Your task to perform on an android device: Open Chrome and go to settings Image 0: 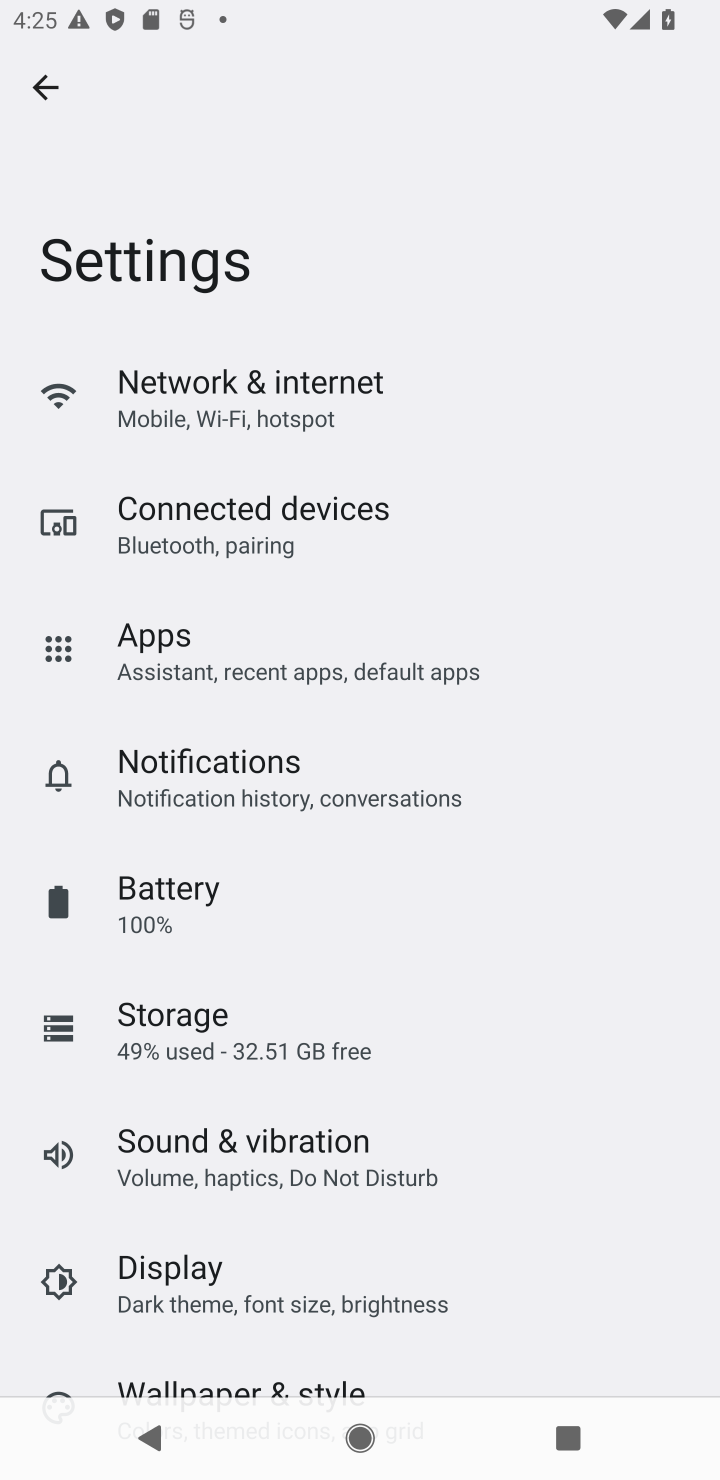
Step 0: press back button
Your task to perform on an android device: Open Chrome and go to settings Image 1: 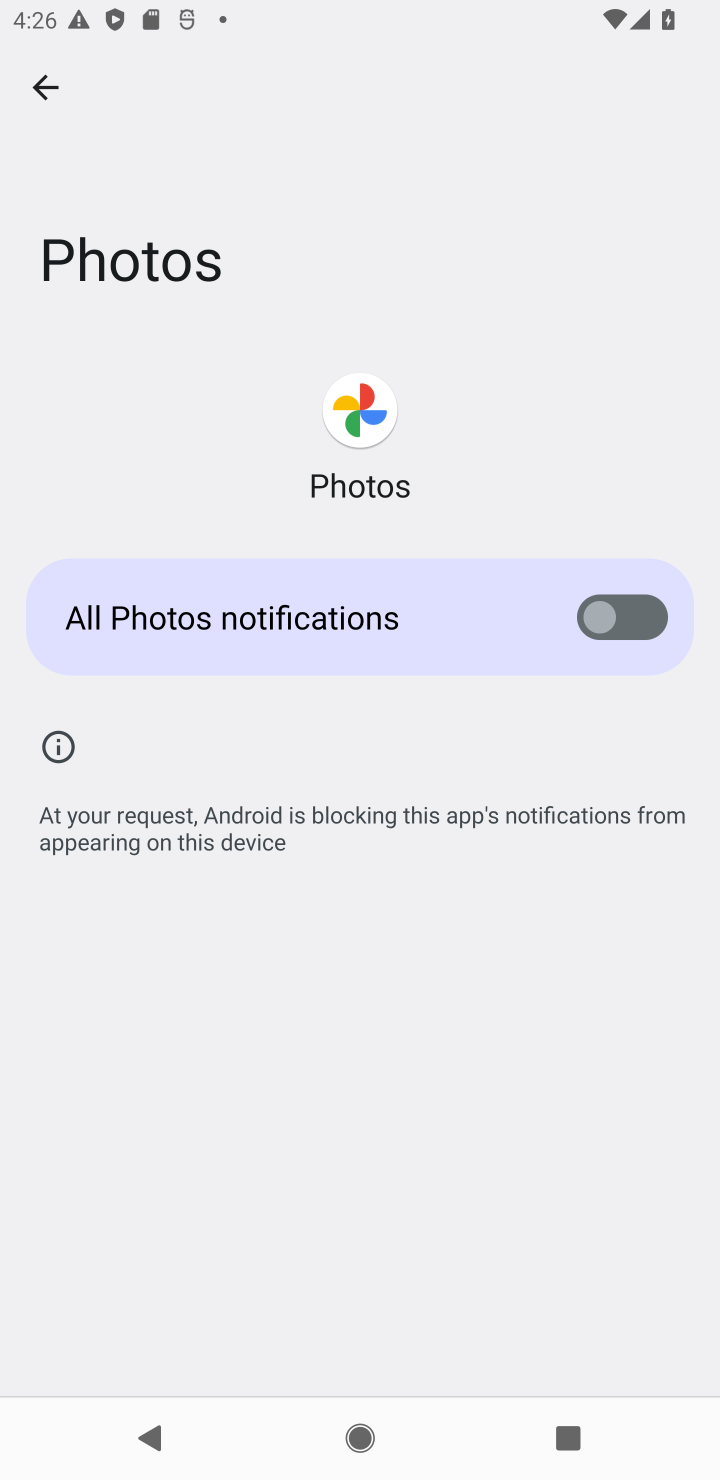
Step 1: press back button
Your task to perform on an android device: Open Chrome and go to settings Image 2: 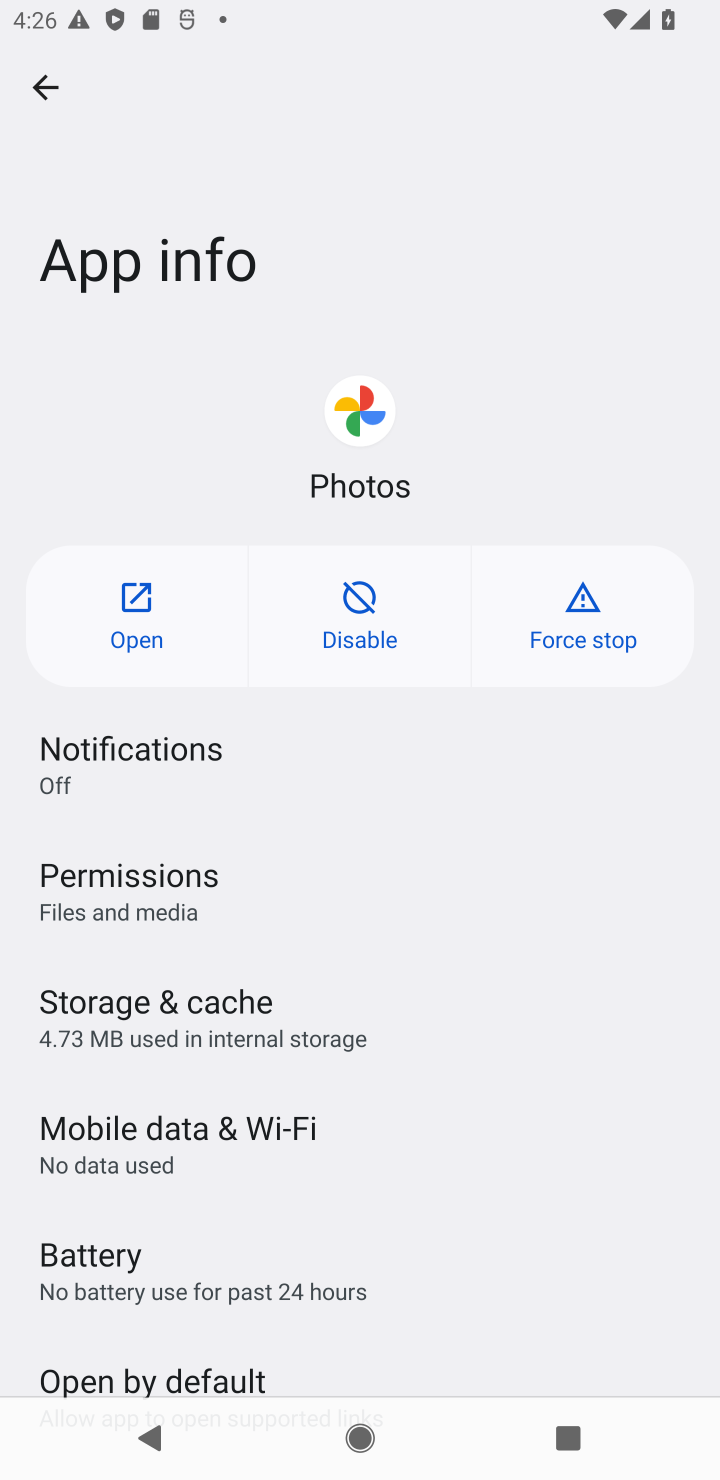
Step 2: press back button
Your task to perform on an android device: Open Chrome and go to settings Image 3: 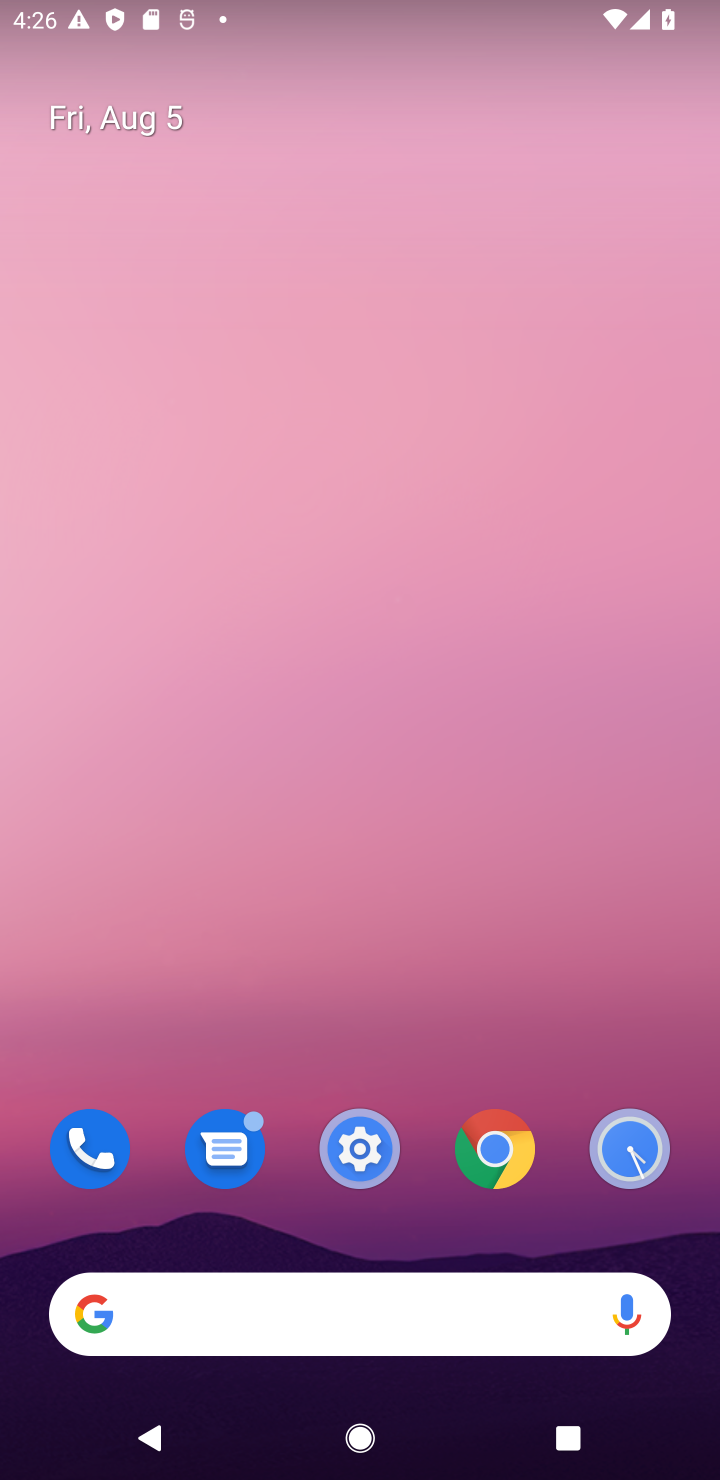
Step 3: click (505, 1131)
Your task to perform on an android device: Open Chrome and go to settings Image 4: 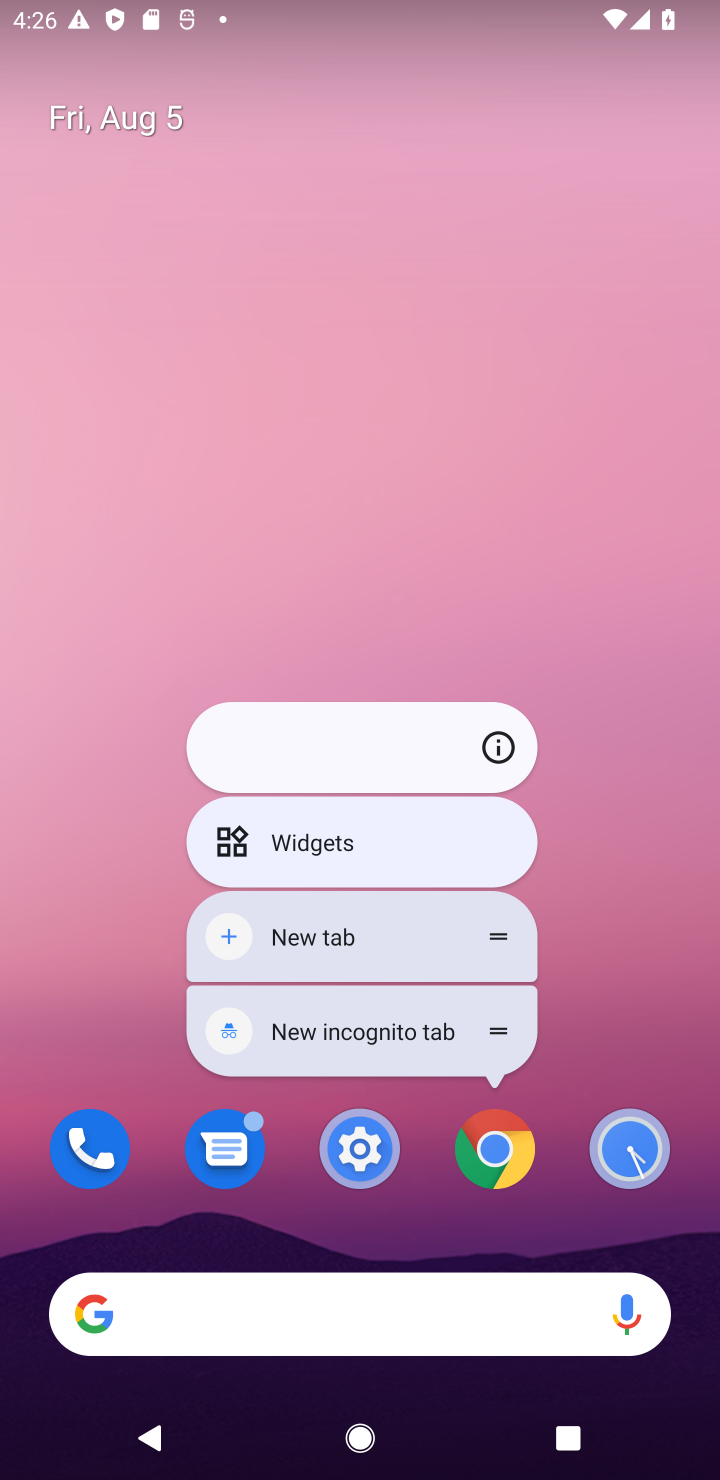
Step 4: click (505, 1131)
Your task to perform on an android device: Open Chrome and go to settings Image 5: 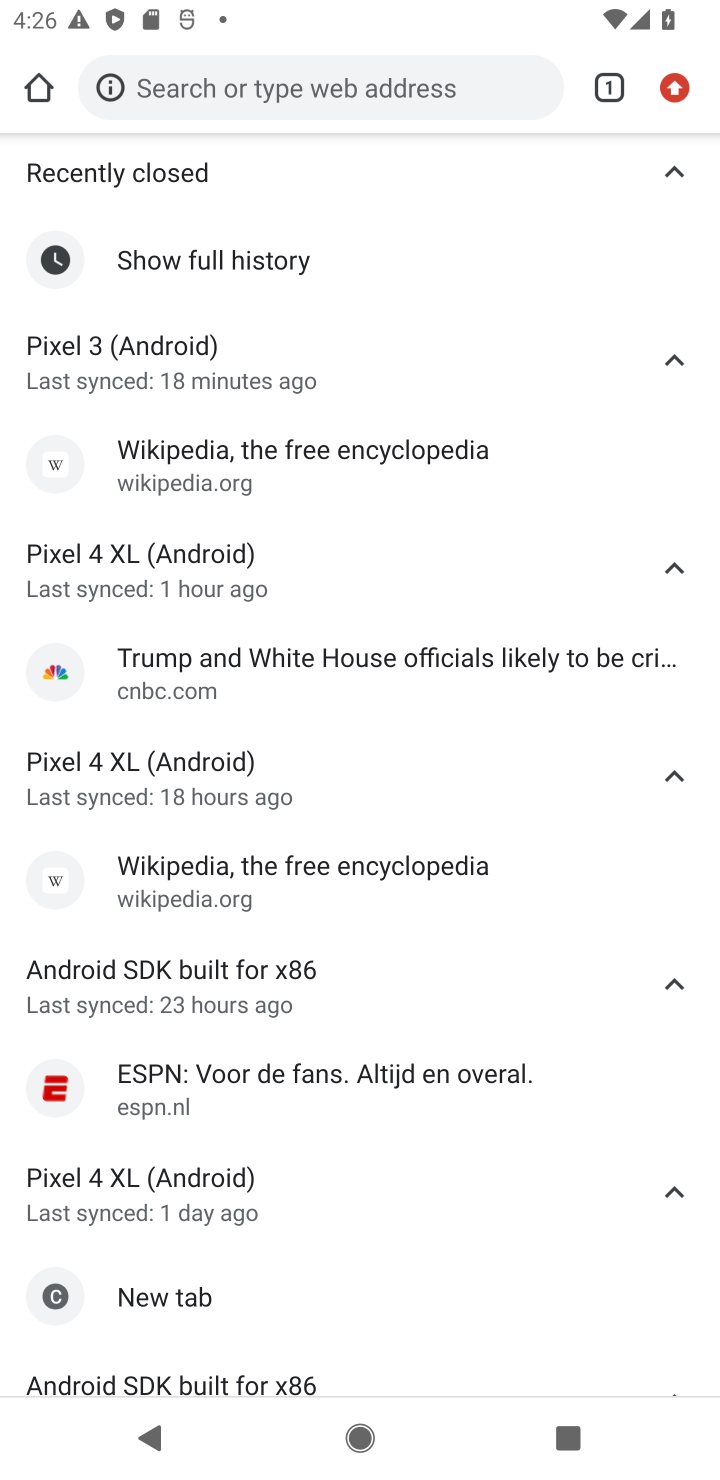
Step 5: task complete